Your task to perform on an android device: star an email in the gmail app Image 0: 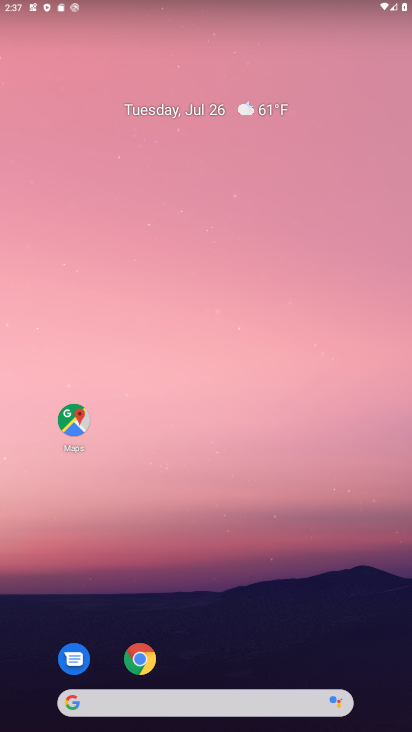
Step 0: drag from (196, 403) to (196, 171)
Your task to perform on an android device: star an email in the gmail app Image 1: 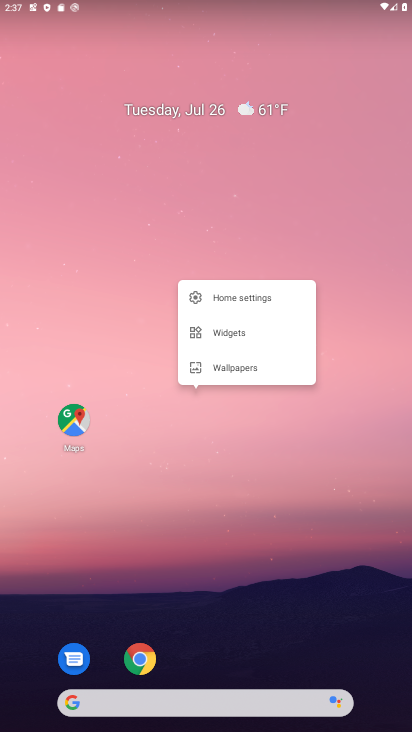
Step 1: drag from (191, 659) to (214, 25)
Your task to perform on an android device: star an email in the gmail app Image 2: 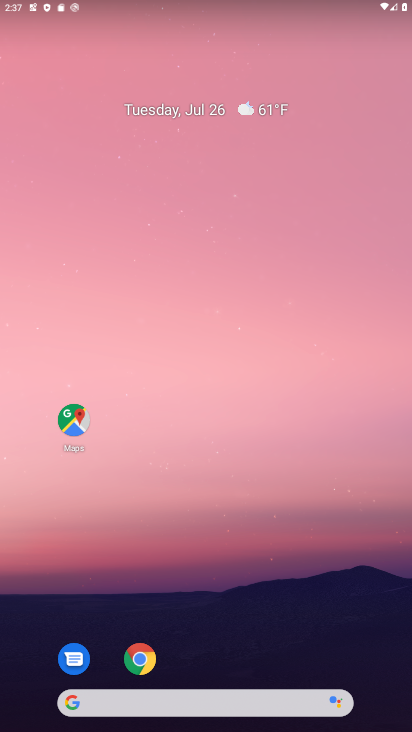
Step 2: click (193, 670)
Your task to perform on an android device: star an email in the gmail app Image 3: 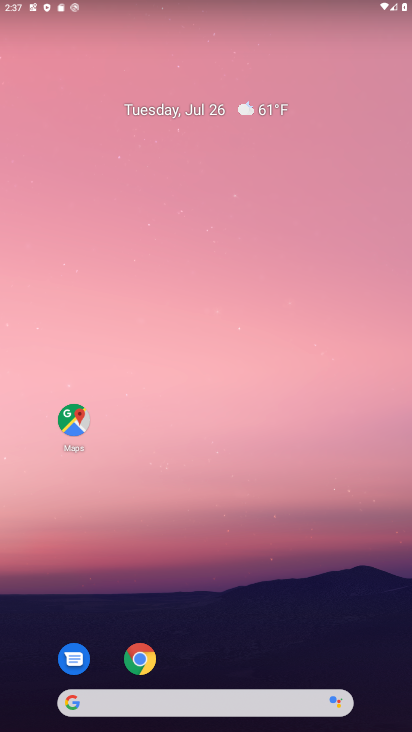
Step 3: drag from (193, 669) to (206, 140)
Your task to perform on an android device: star an email in the gmail app Image 4: 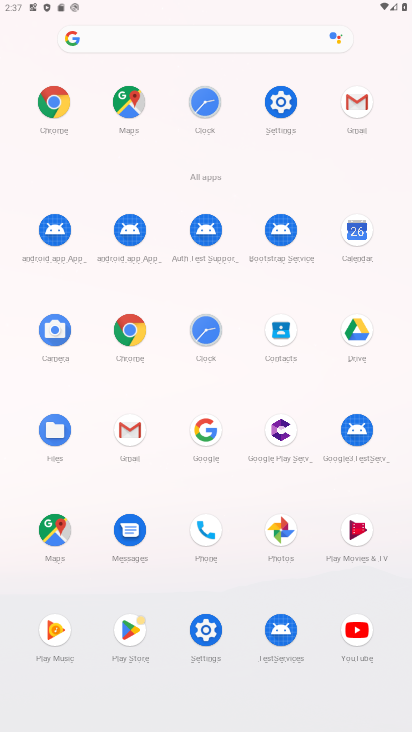
Step 4: click (130, 426)
Your task to perform on an android device: star an email in the gmail app Image 5: 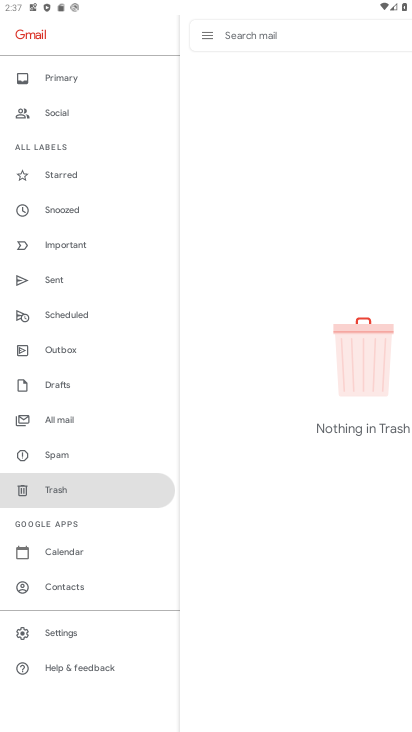
Step 5: click (131, 438)
Your task to perform on an android device: star an email in the gmail app Image 6: 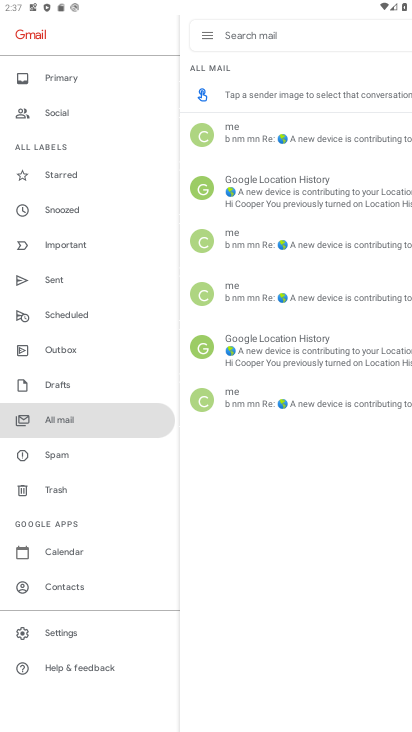
Step 6: click (334, 241)
Your task to perform on an android device: star an email in the gmail app Image 7: 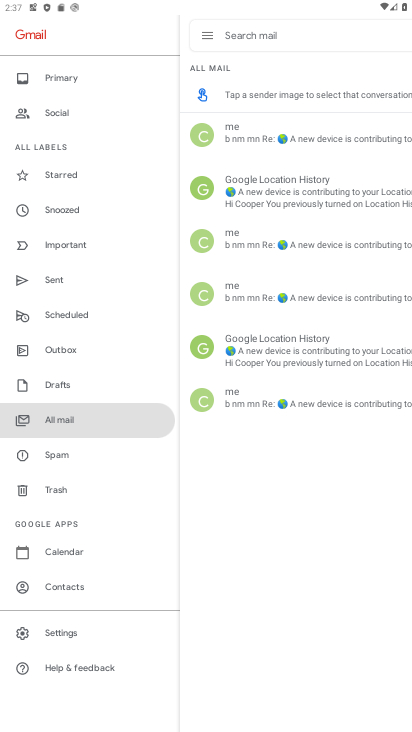
Step 7: click (321, 241)
Your task to perform on an android device: star an email in the gmail app Image 8: 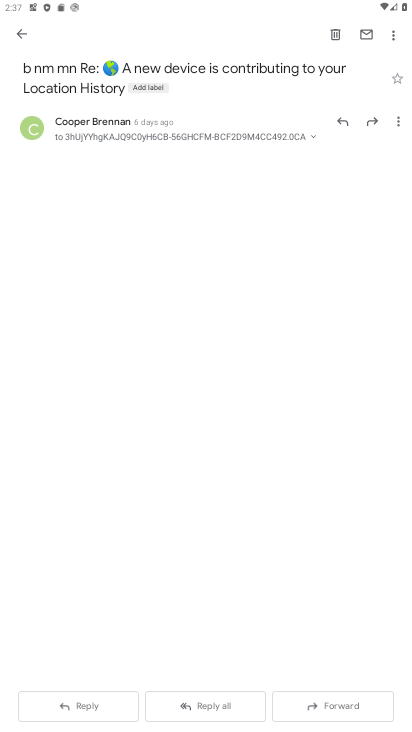
Step 8: click (400, 76)
Your task to perform on an android device: star an email in the gmail app Image 9: 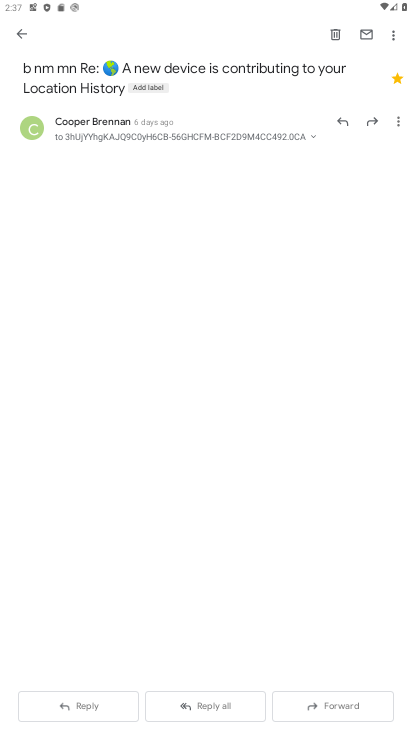
Step 9: task complete